Your task to perform on an android device: clear history in the chrome app Image 0: 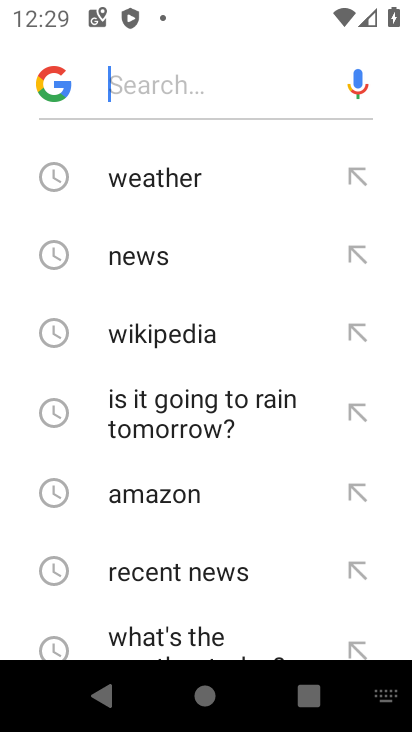
Step 0: press back button
Your task to perform on an android device: clear history in the chrome app Image 1: 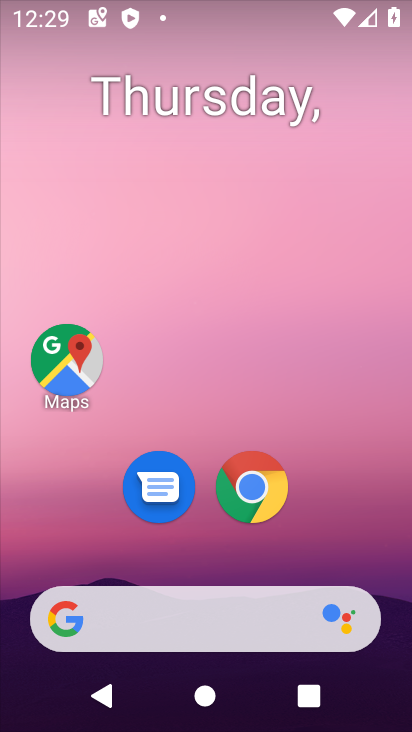
Step 1: drag from (377, 527) to (332, 146)
Your task to perform on an android device: clear history in the chrome app Image 2: 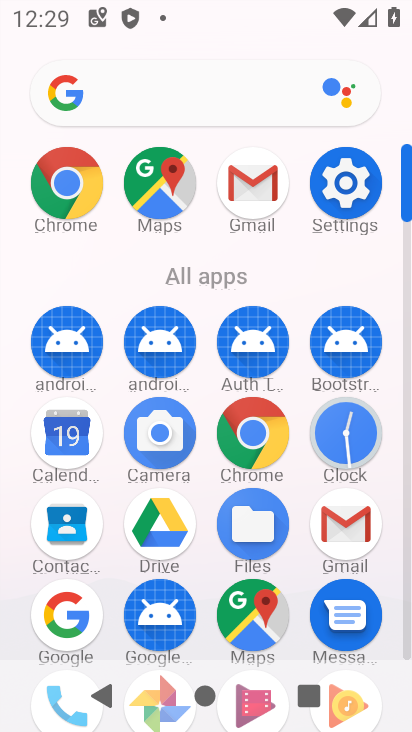
Step 2: click (68, 201)
Your task to perform on an android device: clear history in the chrome app Image 3: 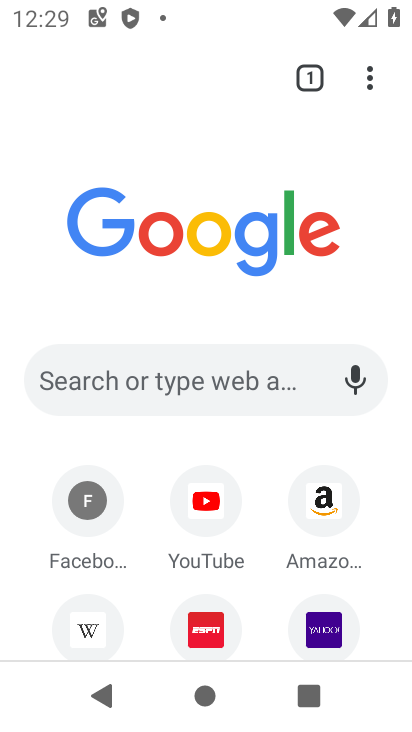
Step 3: click (384, 67)
Your task to perform on an android device: clear history in the chrome app Image 4: 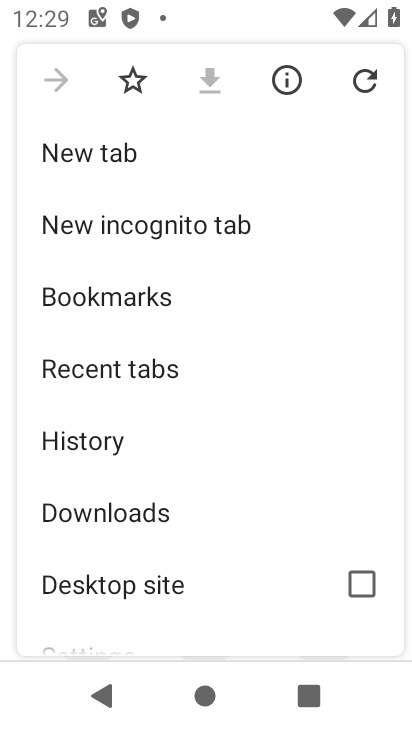
Step 4: click (210, 456)
Your task to perform on an android device: clear history in the chrome app Image 5: 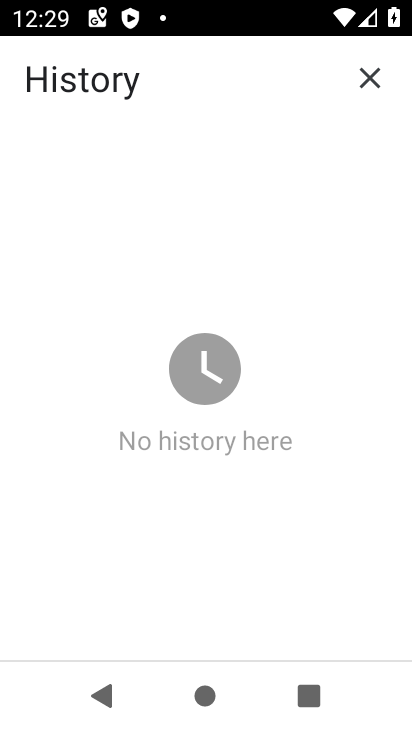
Step 5: task complete